Your task to perform on an android device: Check the weather Image 0: 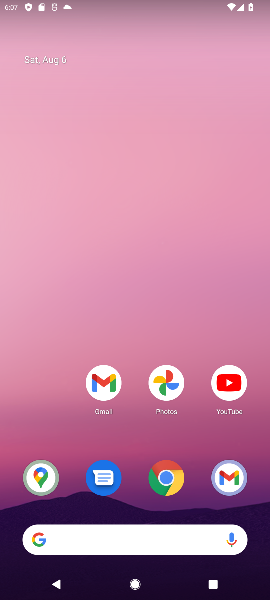
Step 0: click (36, 535)
Your task to perform on an android device: Check the weather Image 1: 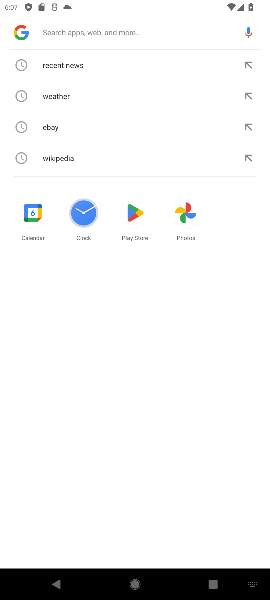
Step 1: click (60, 97)
Your task to perform on an android device: Check the weather Image 2: 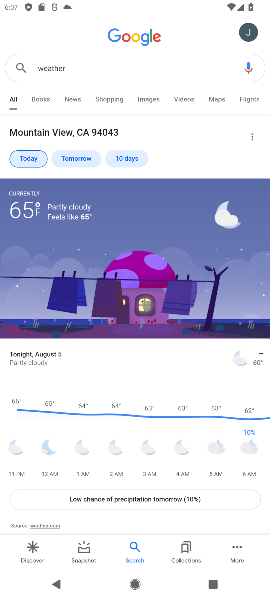
Step 2: task complete